Your task to perform on an android device: see sites visited before in the chrome app Image 0: 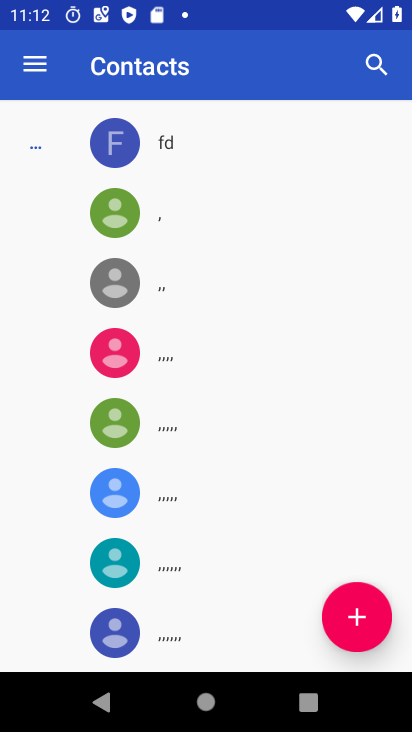
Step 0: drag from (356, 513) to (314, 185)
Your task to perform on an android device: see sites visited before in the chrome app Image 1: 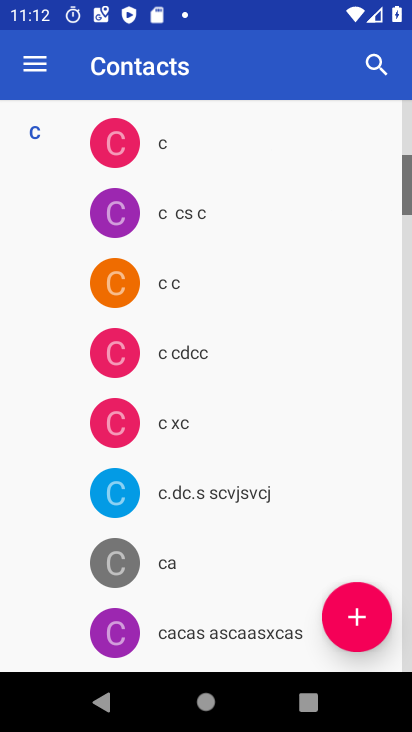
Step 1: press home button
Your task to perform on an android device: see sites visited before in the chrome app Image 2: 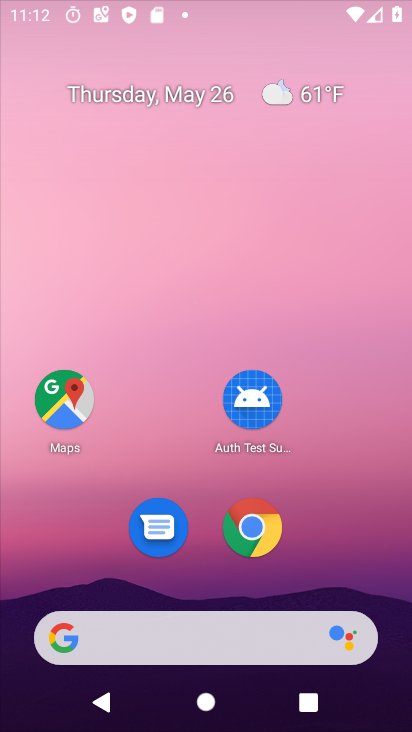
Step 2: drag from (346, 552) to (178, 5)
Your task to perform on an android device: see sites visited before in the chrome app Image 3: 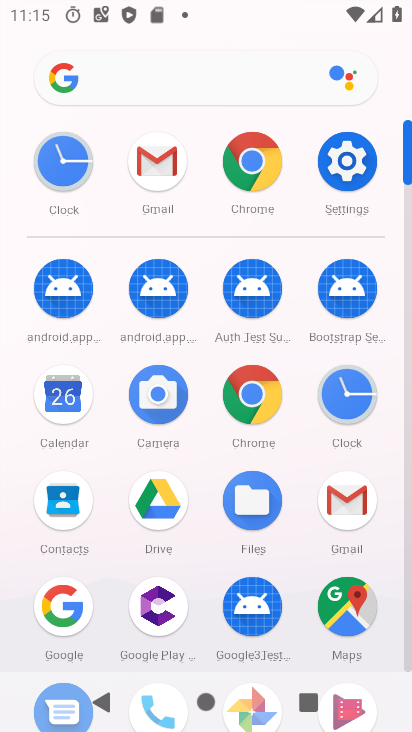
Step 3: click (261, 181)
Your task to perform on an android device: see sites visited before in the chrome app Image 4: 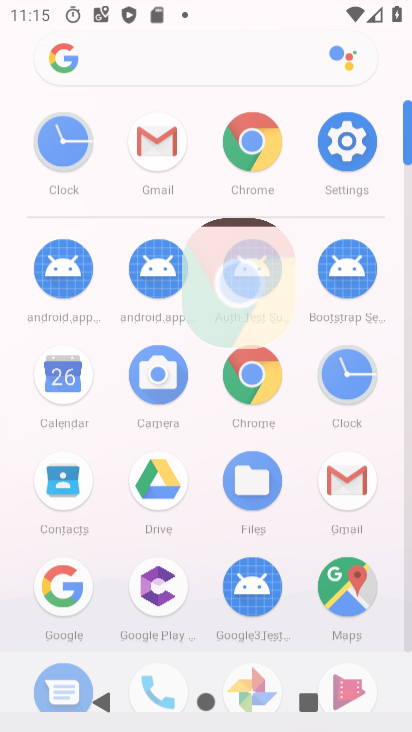
Step 4: click (275, 161)
Your task to perform on an android device: see sites visited before in the chrome app Image 5: 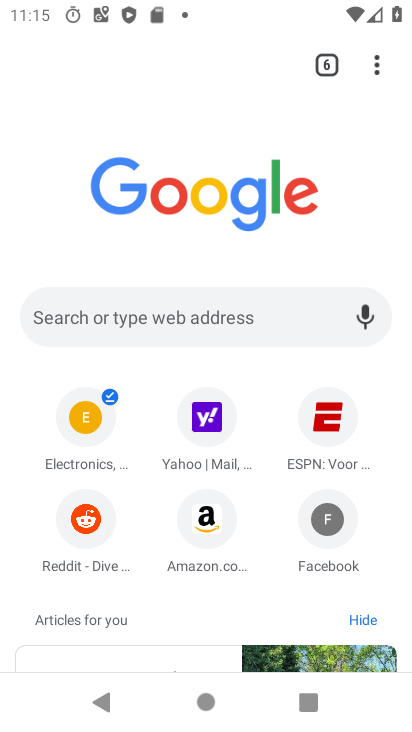
Step 5: task complete